Your task to perform on an android device: Open CNN.com Image 0: 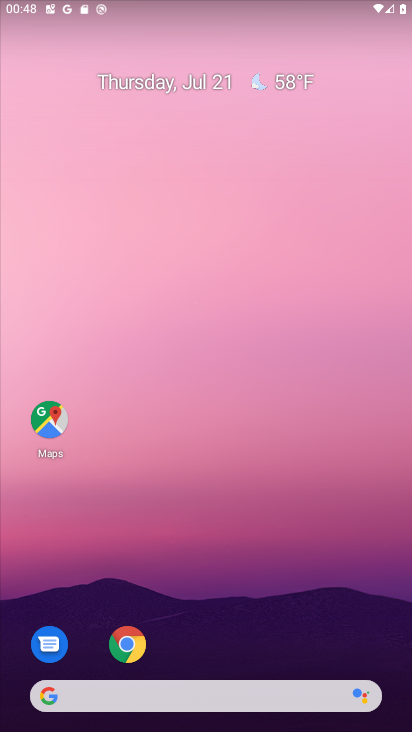
Step 0: click (179, 685)
Your task to perform on an android device: Open CNN.com Image 1: 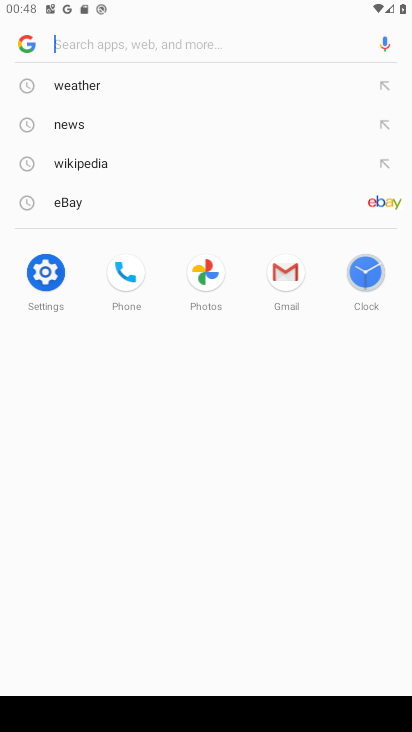
Step 1: type "cnn,com"
Your task to perform on an android device: Open CNN.com Image 2: 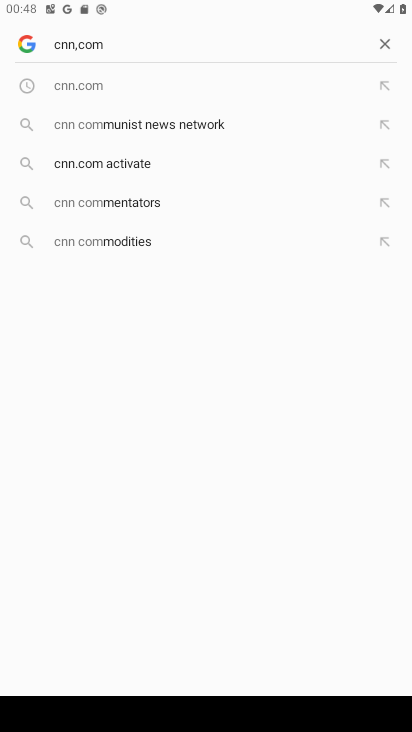
Step 2: click (149, 85)
Your task to perform on an android device: Open CNN.com Image 3: 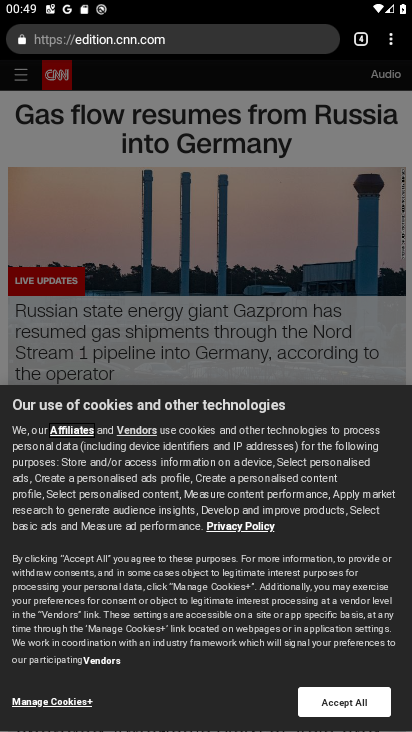
Step 3: task complete